Your task to perform on an android device: change text size in settings app Image 0: 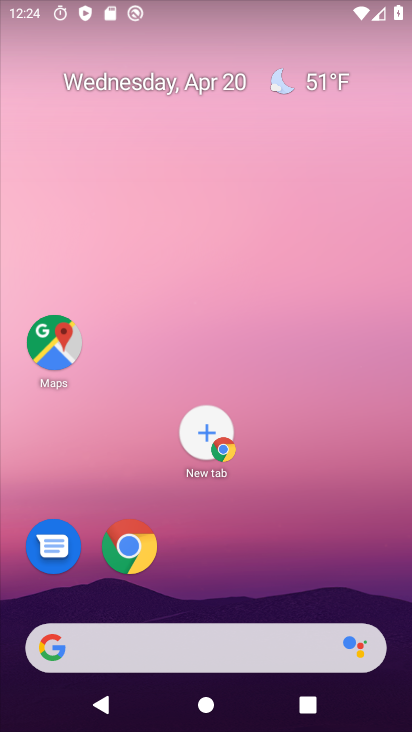
Step 0: drag from (178, 11) to (206, 396)
Your task to perform on an android device: change text size in settings app Image 1: 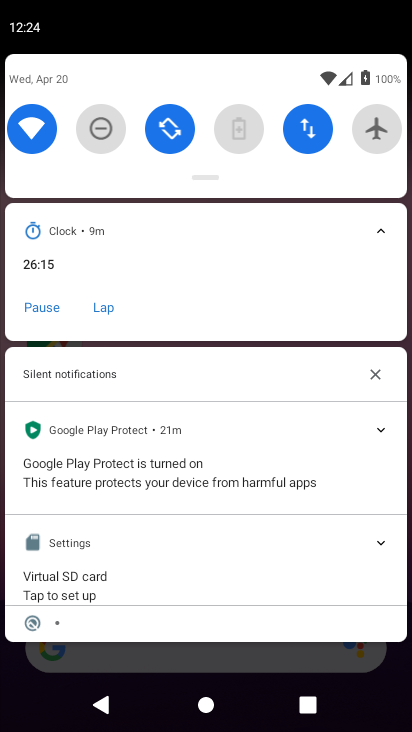
Step 1: drag from (214, 61) to (230, 388)
Your task to perform on an android device: change text size in settings app Image 2: 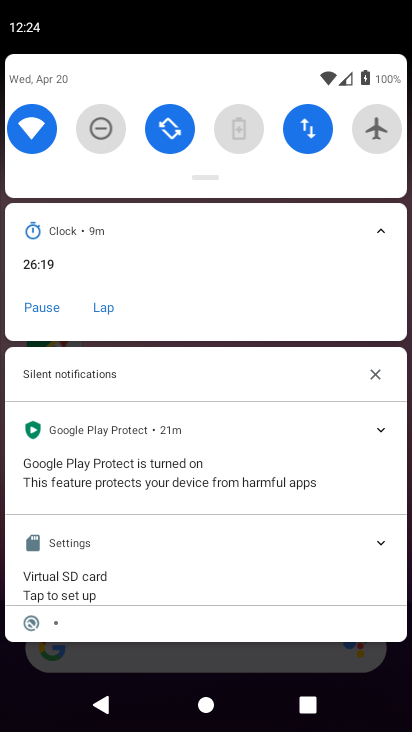
Step 2: drag from (270, 89) to (337, 633)
Your task to perform on an android device: change text size in settings app Image 3: 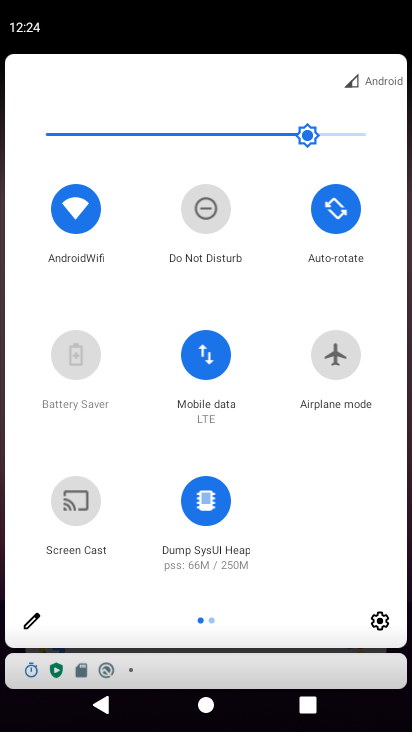
Step 3: click (376, 628)
Your task to perform on an android device: change text size in settings app Image 4: 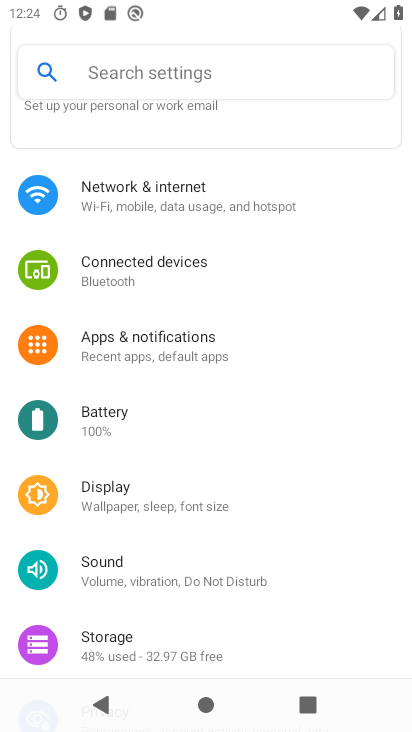
Step 4: click (189, 504)
Your task to perform on an android device: change text size in settings app Image 5: 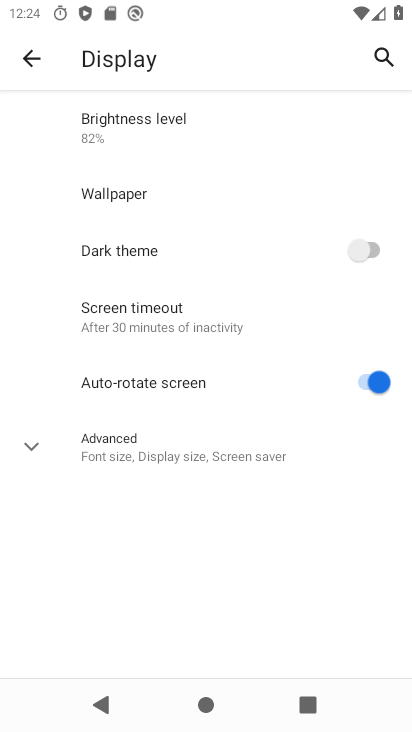
Step 5: click (154, 459)
Your task to perform on an android device: change text size in settings app Image 6: 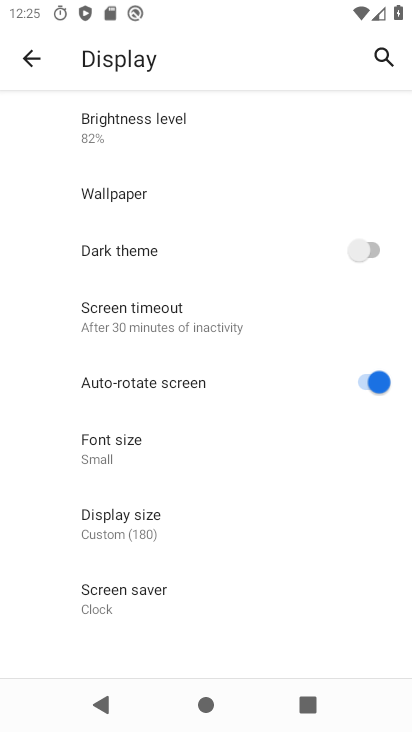
Step 6: click (154, 459)
Your task to perform on an android device: change text size in settings app Image 7: 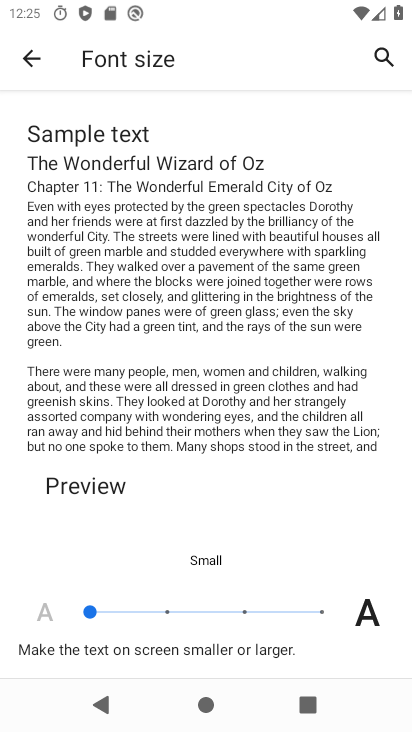
Step 7: click (169, 607)
Your task to perform on an android device: change text size in settings app Image 8: 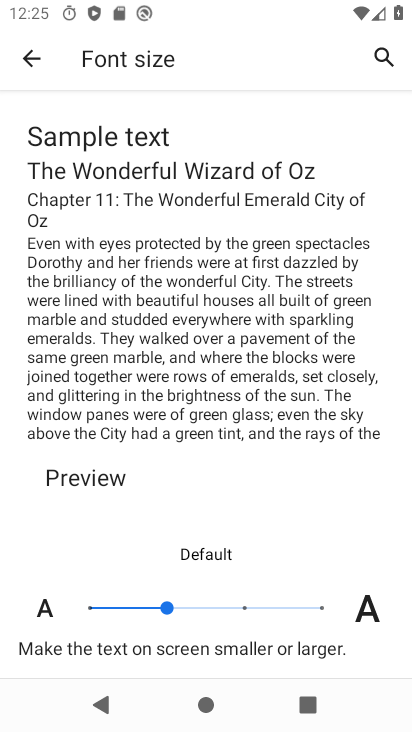
Step 8: task complete